Your task to perform on an android device: Open sound settings Image 0: 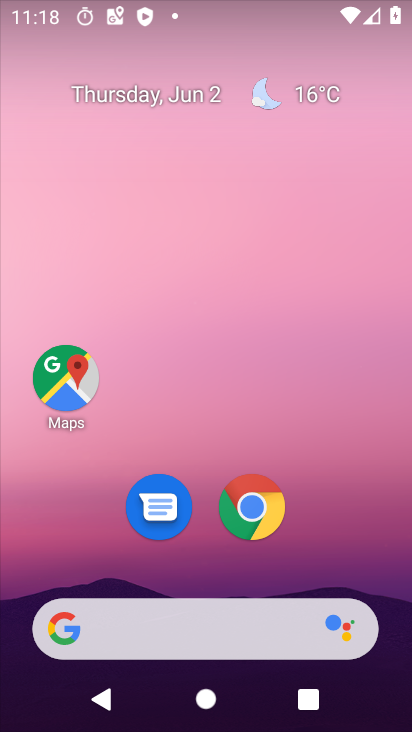
Step 0: click (399, 630)
Your task to perform on an android device: Open sound settings Image 1: 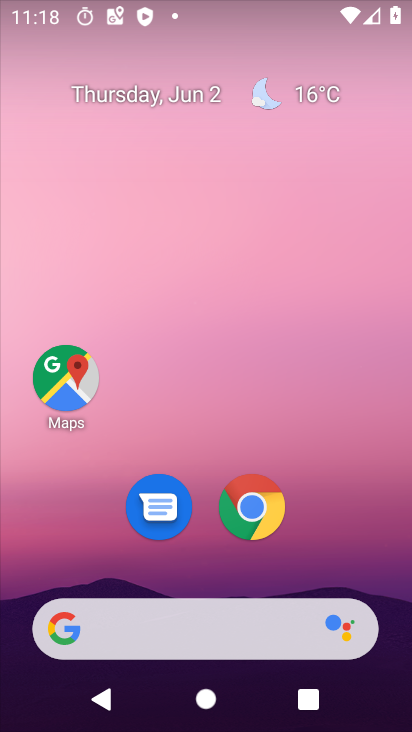
Step 1: click (256, 113)
Your task to perform on an android device: Open sound settings Image 2: 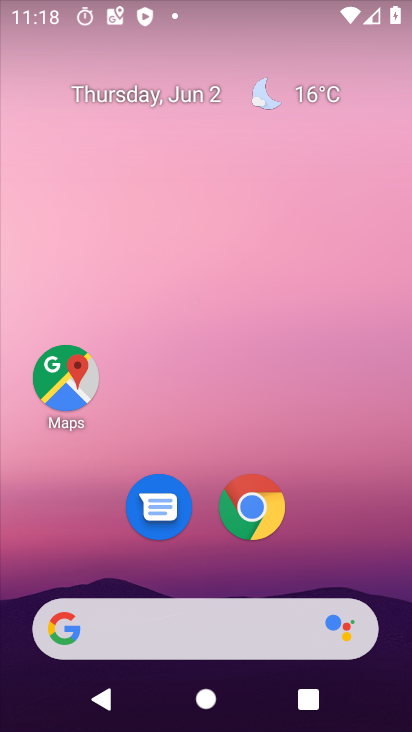
Step 2: drag from (394, 629) to (309, 92)
Your task to perform on an android device: Open sound settings Image 3: 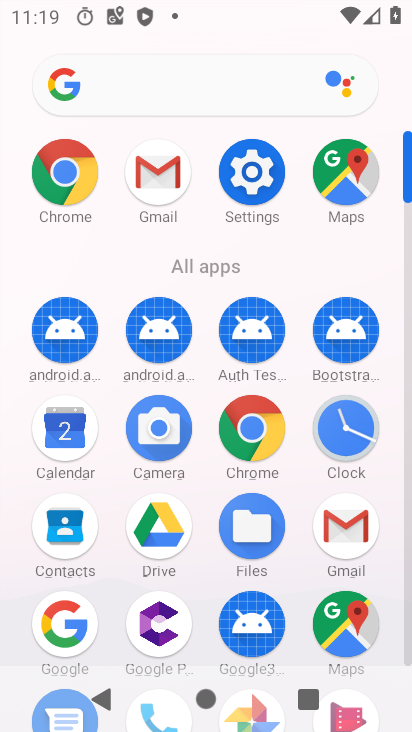
Step 3: click (266, 181)
Your task to perform on an android device: Open sound settings Image 4: 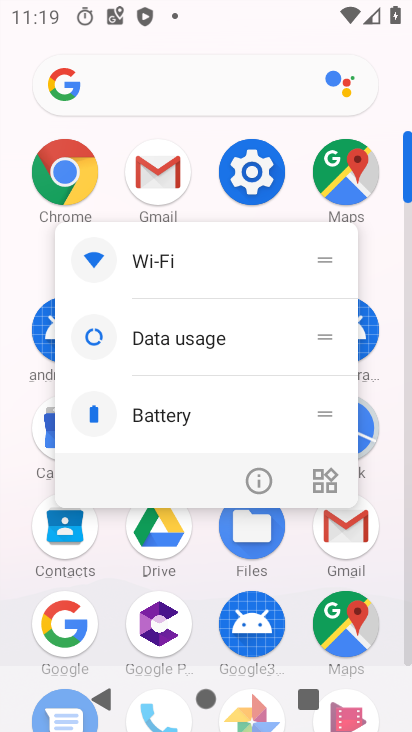
Step 4: click (244, 177)
Your task to perform on an android device: Open sound settings Image 5: 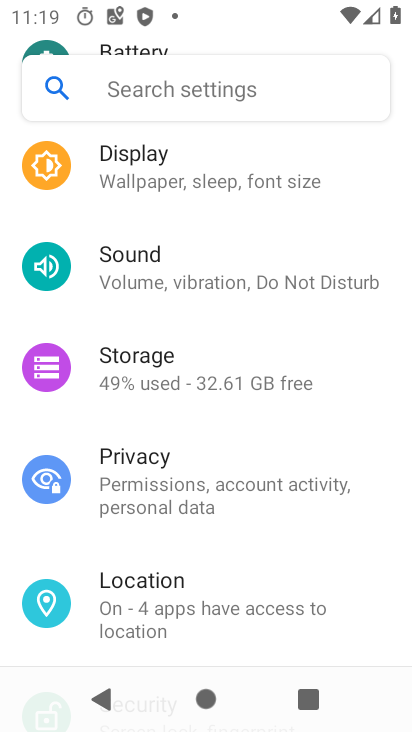
Step 5: click (165, 284)
Your task to perform on an android device: Open sound settings Image 6: 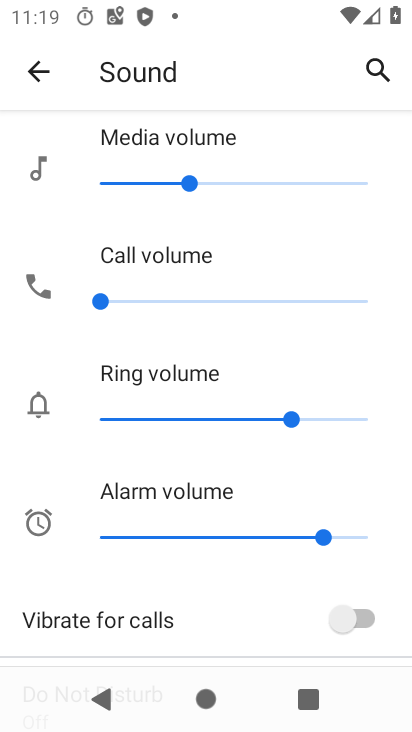
Step 6: task complete